Your task to perform on an android device: turn on airplane mode Image 0: 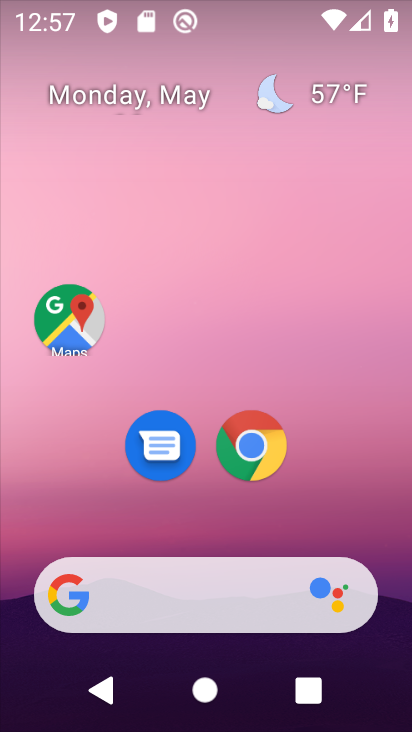
Step 0: drag from (400, 632) to (403, 501)
Your task to perform on an android device: turn on airplane mode Image 1: 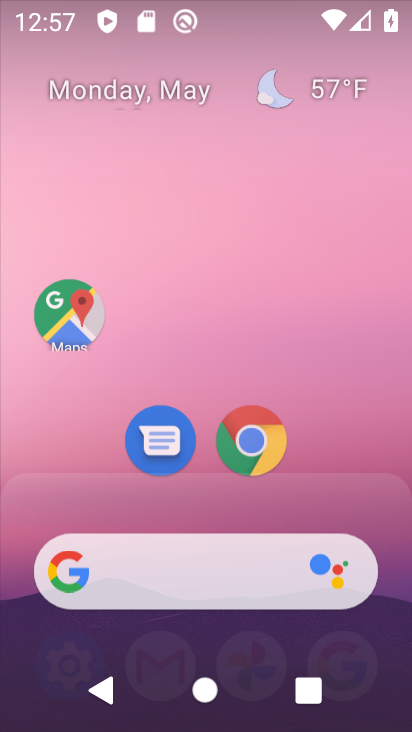
Step 1: drag from (403, 338) to (399, 174)
Your task to perform on an android device: turn on airplane mode Image 2: 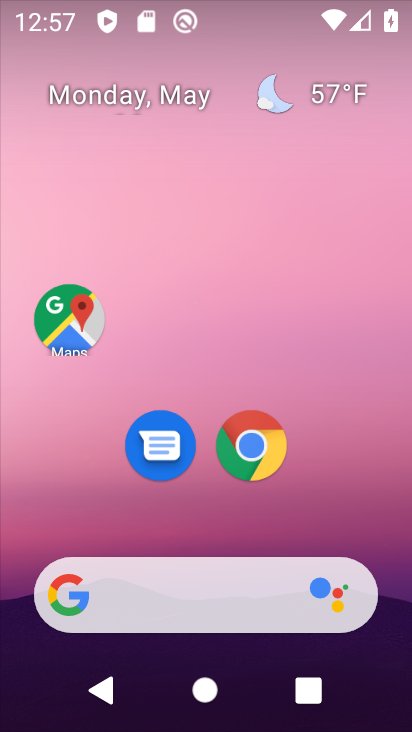
Step 2: drag from (307, 4) to (321, 538)
Your task to perform on an android device: turn on airplane mode Image 3: 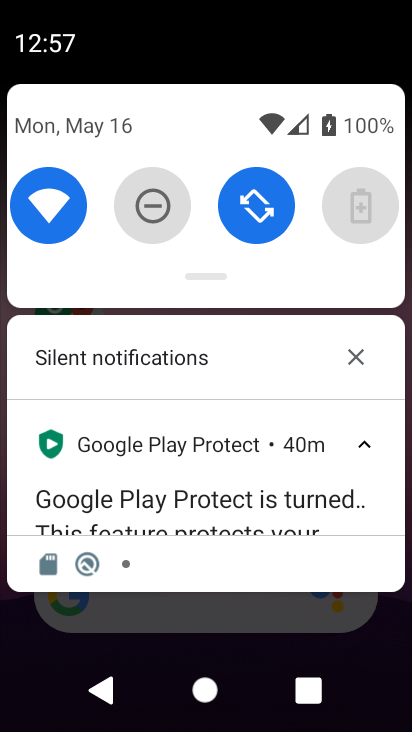
Step 3: drag from (271, 276) to (261, 619)
Your task to perform on an android device: turn on airplane mode Image 4: 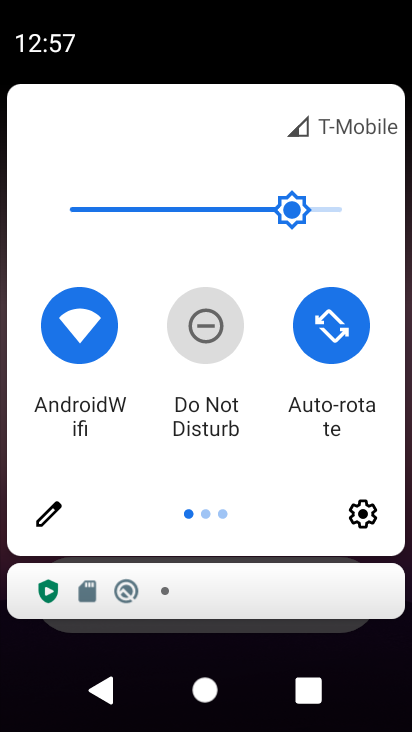
Step 4: drag from (354, 432) to (11, 355)
Your task to perform on an android device: turn on airplane mode Image 5: 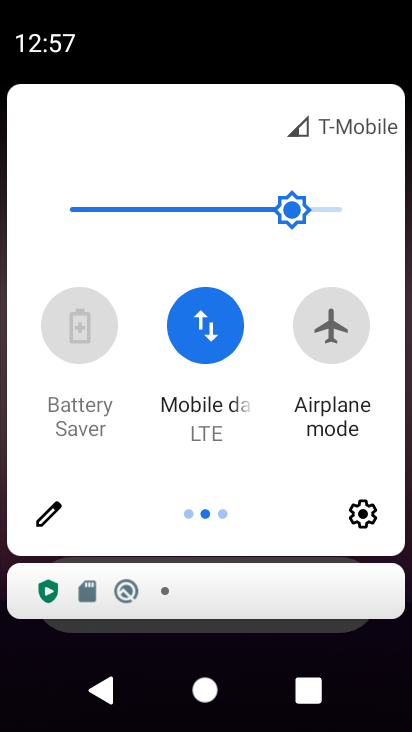
Step 5: click (335, 325)
Your task to perform on an android device: turn on airplane mode Image 6: 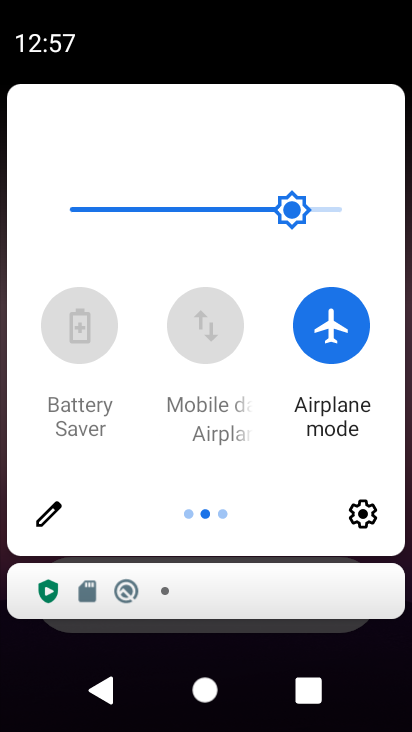
Step 6: task complete